Your task to perform on an android device: Is it going to rain this weekend? Image 0: 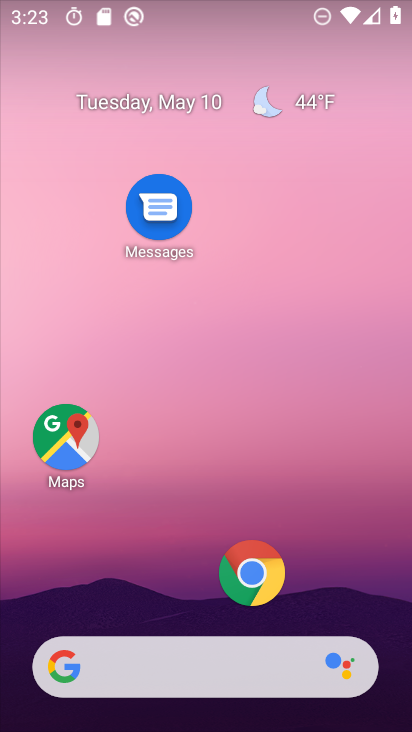
Step 0: drag from (187, 601) to (236, 151)
Your task to perform on an android device: Is it going to rain this weekend? Image 1: 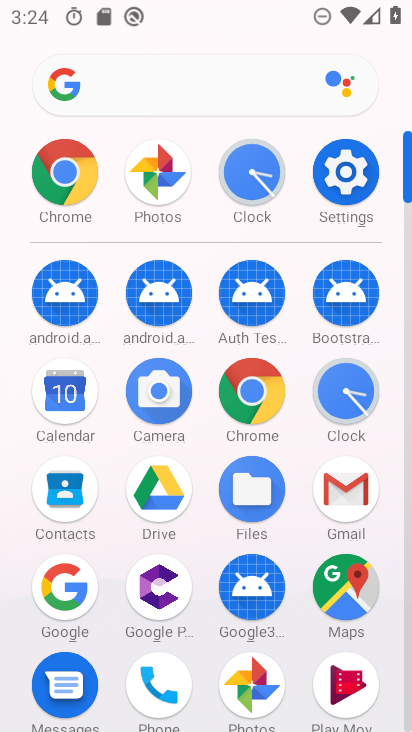
Step 1: click (74, 598)
Your task to perform on an android device: Is it going to rain this weekend? Image 2: 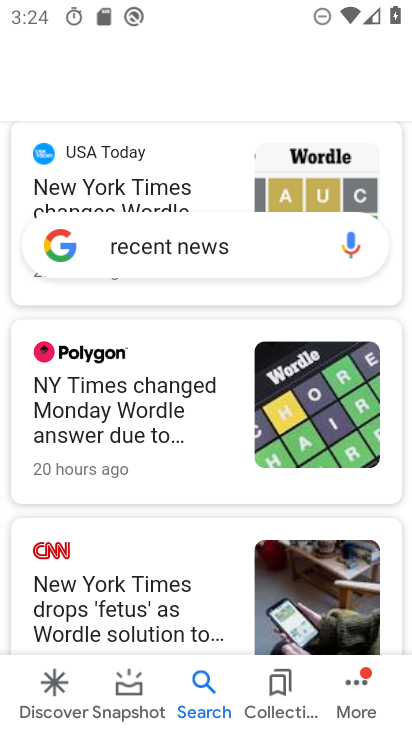
Step 2: drag from (210, 218) to (207, 510)
Your task to perform on an android device: Is it going to rain this weekend? Image 3: 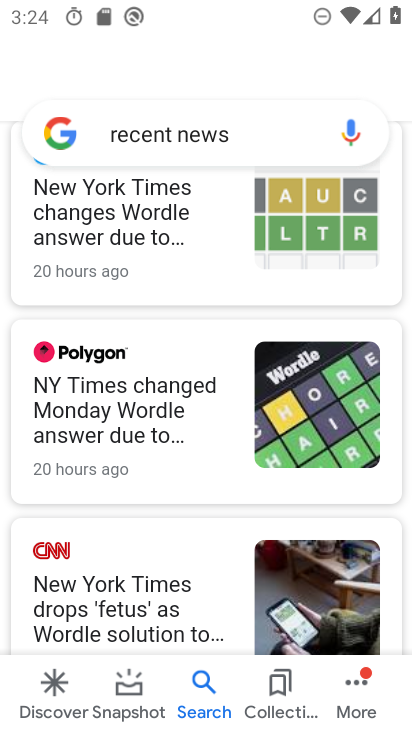
Step 3: drag from (180, 325) to (155, 578)
Your task to perform on an android device: Is it going to rain this weekend? Image 4: 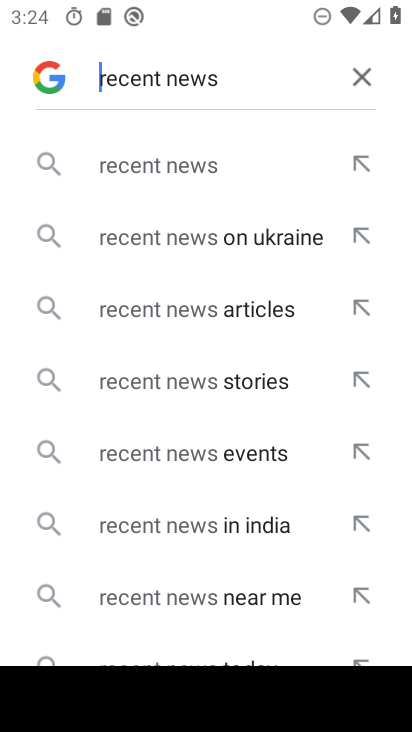
Step 4: click (361, 76)
Your task to perform on an android device: Is it going to rain this weekend? Image 5: 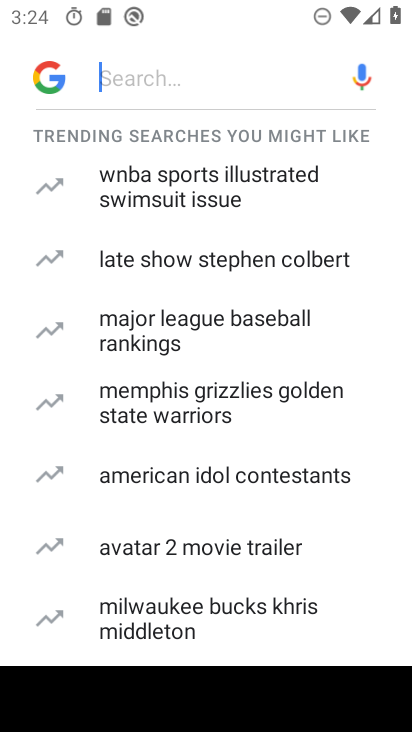
Step 5: press back button
Your task to perform on an android device: Is it going to rain this weekend? Image 6: 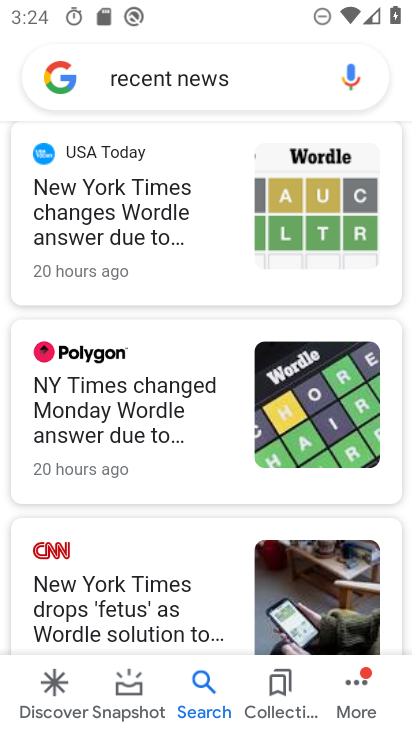
Step 6: press back button
Your task to perform on an android device: Is it going to rain this weekend? Image 7: 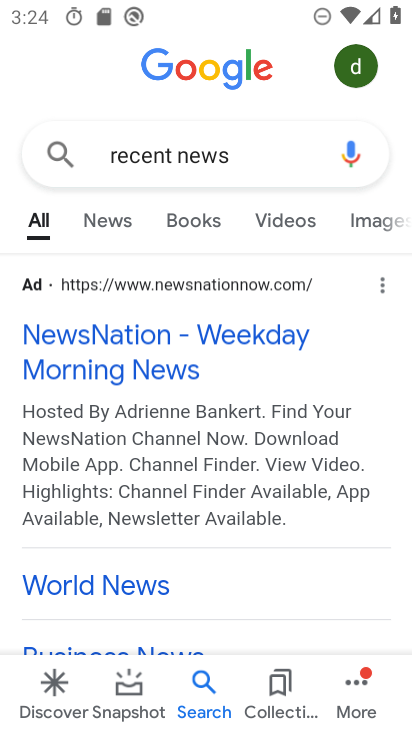
Step 7: click (236, 155)
Your task to perform on an android device: Is it going to rain this weekend? Image 8: 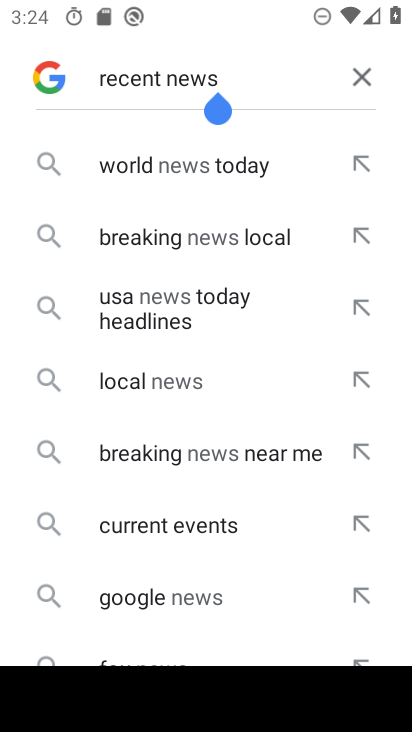
Step 8: click (359, 67)
Your task to perform on an android device: Is it going to rain this weekend? Image 9: 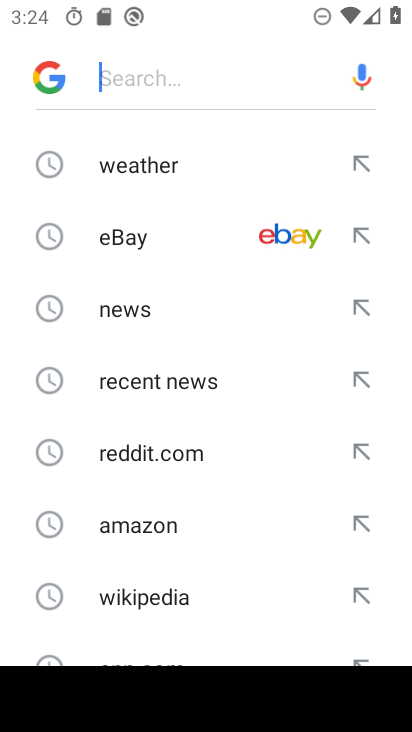
Step 9: click (176, 168)
Your task to perform on an android device: Is it going to rain this weekend? Image 10: 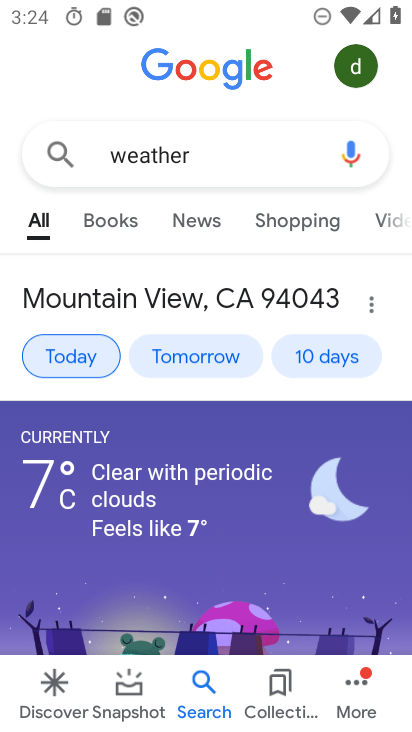
Step 10: drag from (193, 538) to (224, 320)
Your task to perform on an android device: Is it going to rain this weekend? Image 11: 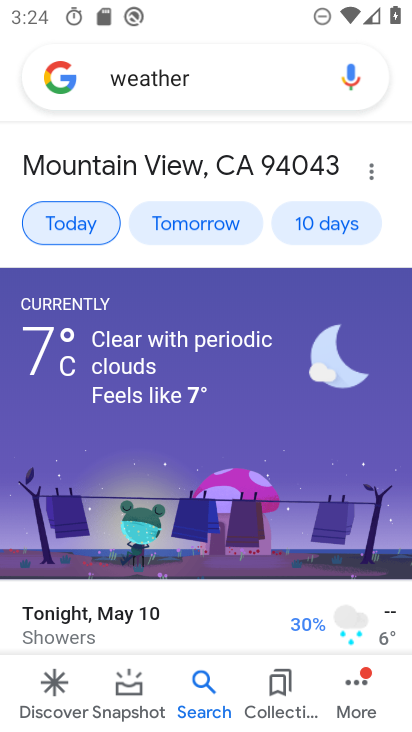
Step 11: click (314, 220)
Your task to perform on an android device: Is it going to rain this weekend? Image 12: 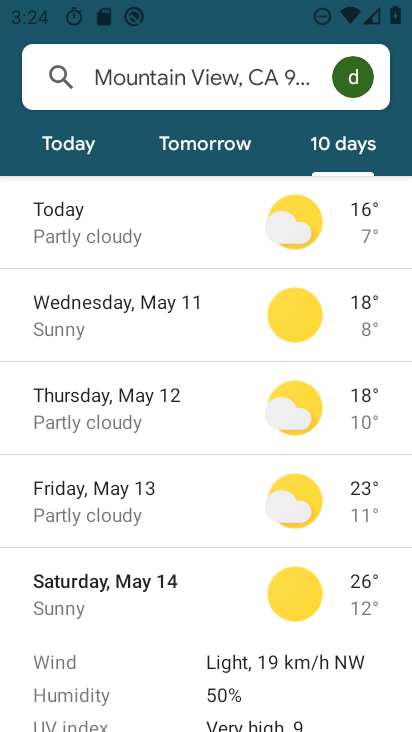
Step 12: task complete